Your task to perform on an android device: install app "Nova Launcher" Image 0: 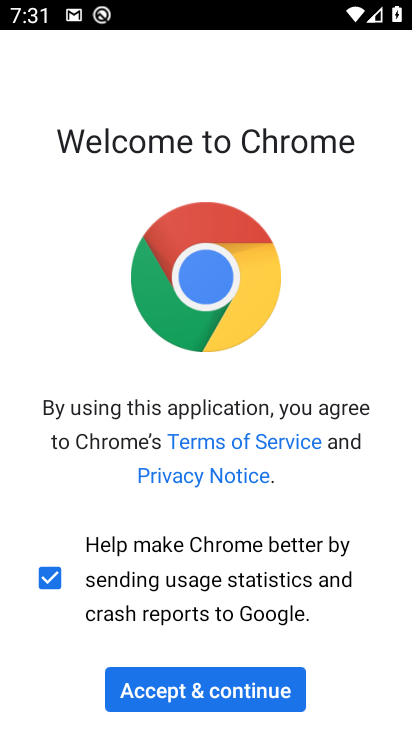
Step 0: press home button
Your task to perform on an android device: install app "Nova Launcher" Image 1: 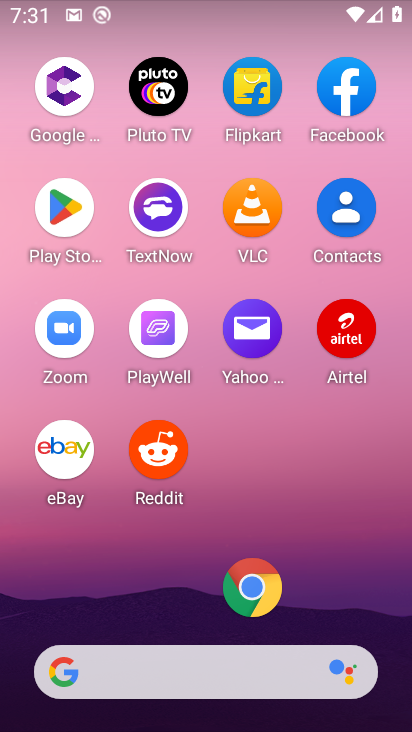
Step 1: click (67, 214)
Your task to perform on an android device: install app "Nova Launcher" Image 2: 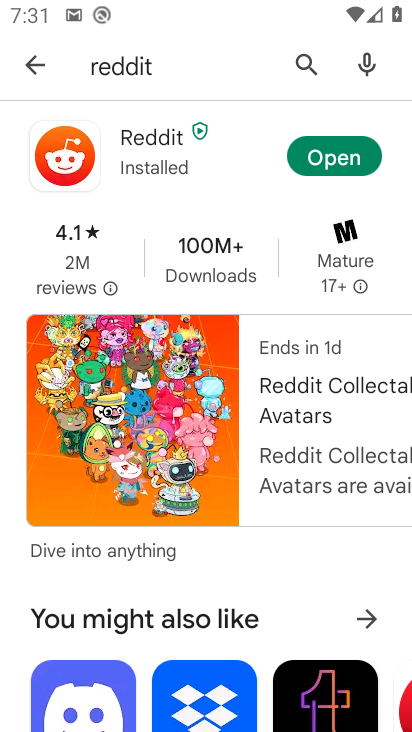
Step 2: click (289, 68)
Your task to perform on an android device: install app "Nova Launcher" Image 3: 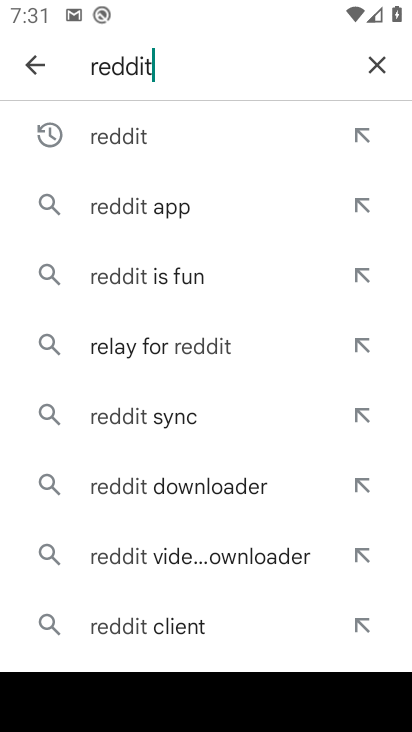
Step 3: click (373, 68)
Your task to perform on an android device: install app "Nova Launcher" Image 4: 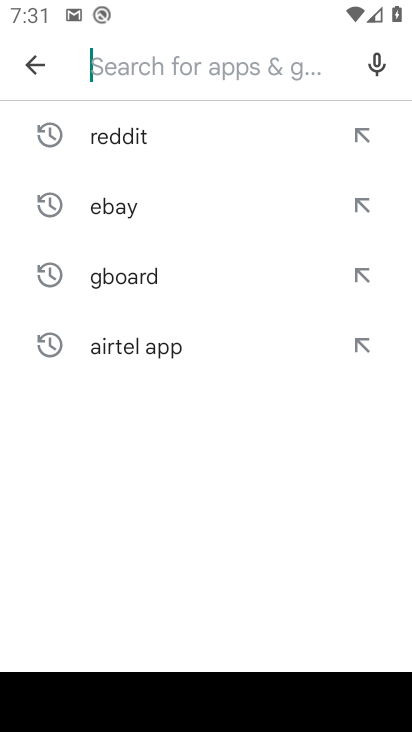
Step 4: type "nova launcher"
Your task to perform on an android device: install app "Nova Launcher" Image 5: 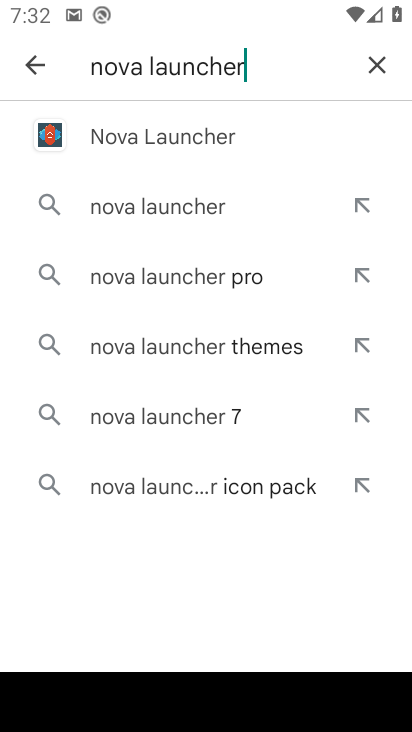
Step 5: click (223, 132)
Your task to perform on an android device: install app "Nova Launcher" Image 6: 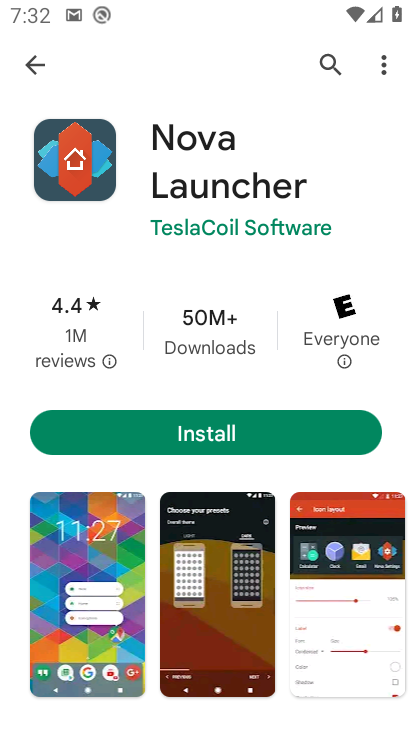
Step 6: click (120, 415)
Your task to perform on an android device: install app "Nova Launcher" Image 7: 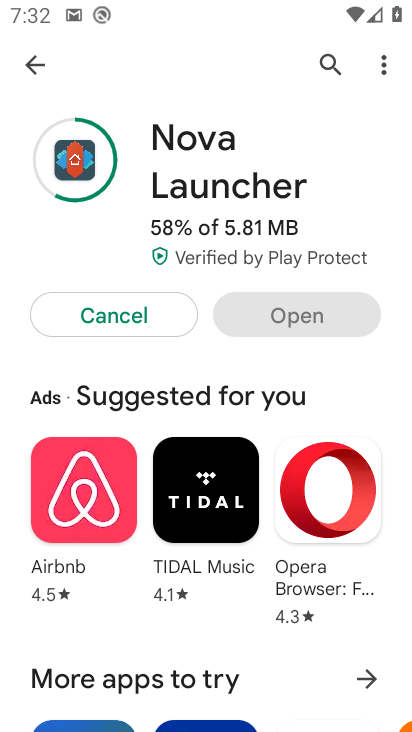
Step 7: task complete